Your task to perform on an android device: Search for seafood restaurants on Google Maps Image 0: 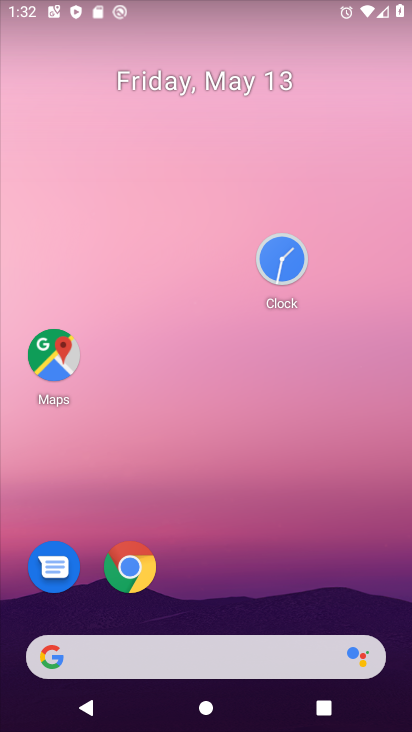
Step 0: click (45, 343)
Your task to perform on an android device: Search for seafood restaurants on Google Maps Image 1: 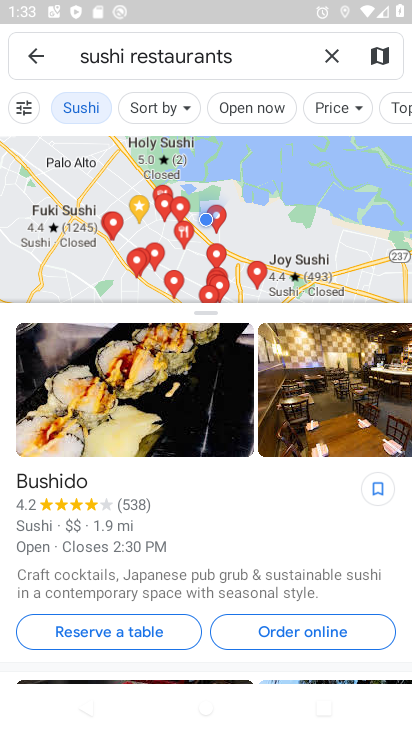
Step 1: click (218, 53)
Your task to perform on an android device: Search for seafood restaurants on Google Maps Image 2: 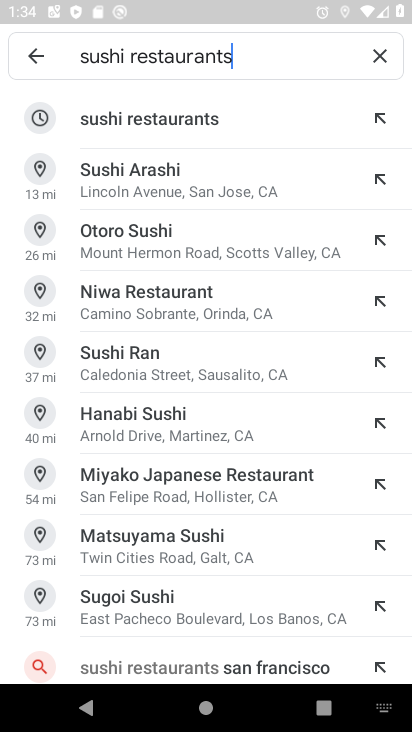
Step 2: click (385, 56)
Your task to perform on an android device: Search for seafood restaurants on Google Maps Image 3: 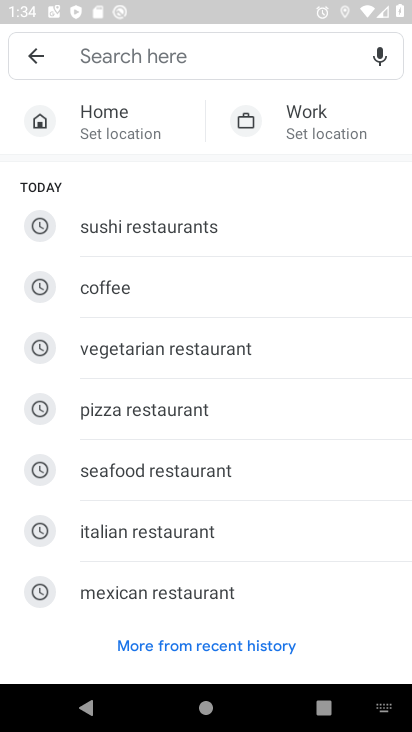
Step 3: click (199, 466)
Your task to perform on an android device: Search for seafood restaurants on Google Maps Image 4: 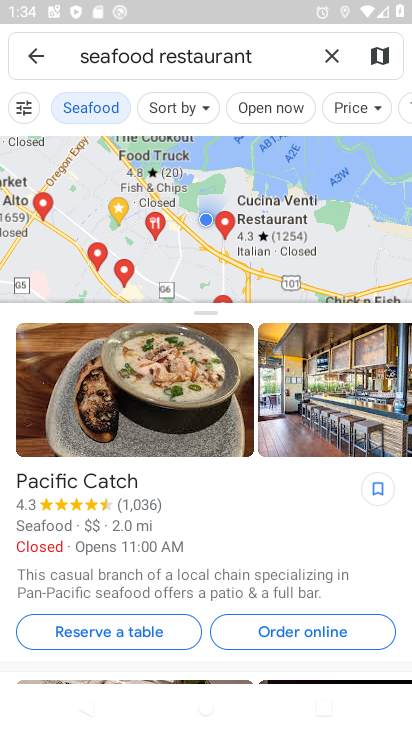
Step 4: task complete